Your task to perform on an android device: Go to Android settings Image 0: 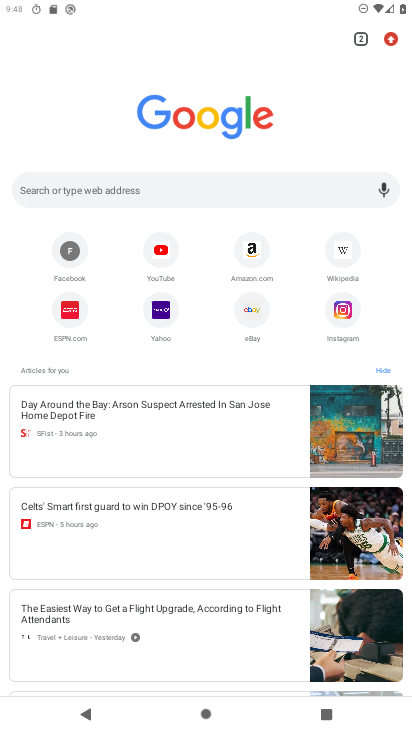
Step 0: click (386, 39)
Your task to perform on an android device: Go to Android settings Image 1: 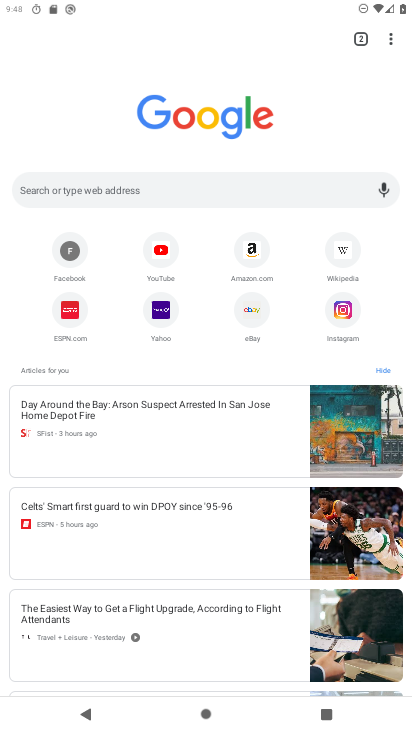
Step 1: click (388, 35)
Your task to perform on an android device: Go to Android settings Image 2: 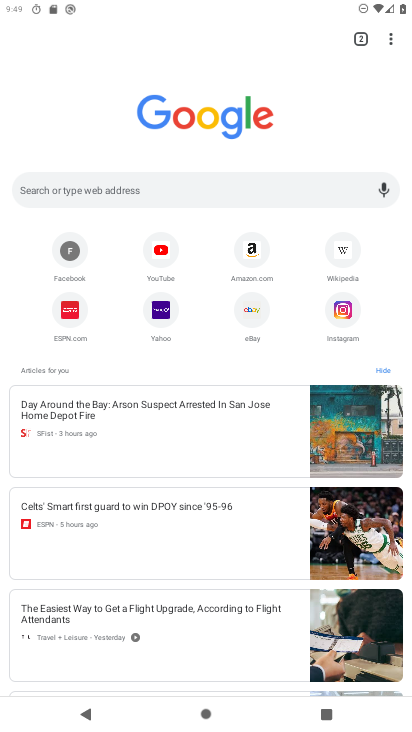
Step 2: click (388, 35)
Your task to perform on an android device: Go to Android settings Image 3: 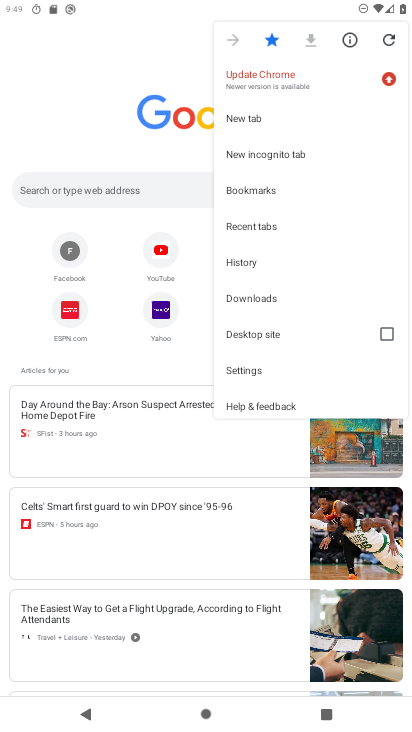
Step 3: press home button
Your task to perform on an android device: Go to Android settings Image 4: 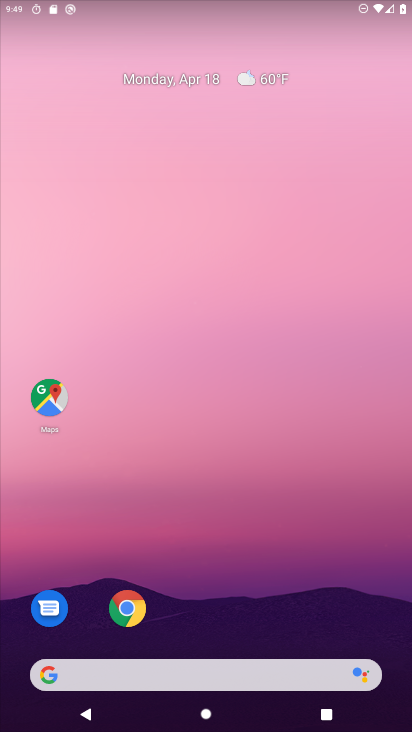
Step 4: drag from (373, 632) to (324, 181)
Your task to perform on an android device: Go to Android settings Image 5: 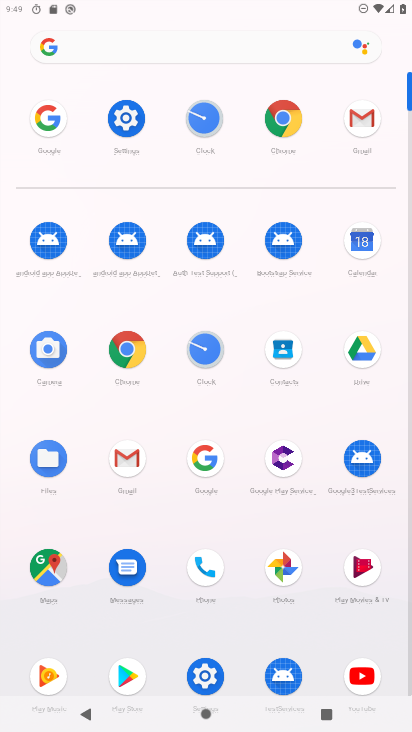
Step 5: click (127, 114)
Your task to perform on an android device: Go to Android settings Image 6: 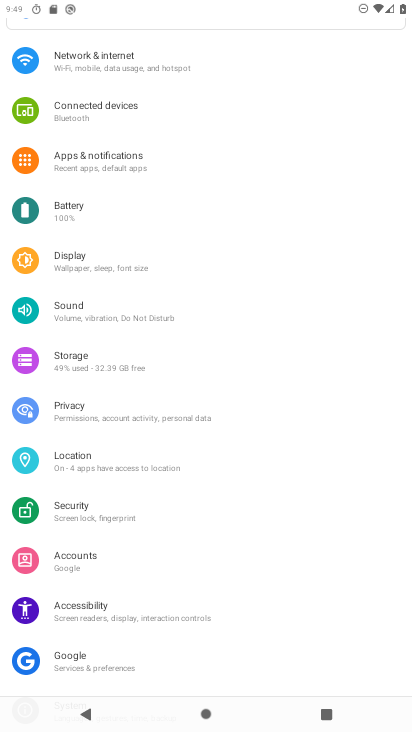
Step 6: drag from (247, 437) to (242, 165)
Your task to perform on an android device: Go to Android settings Image 7: 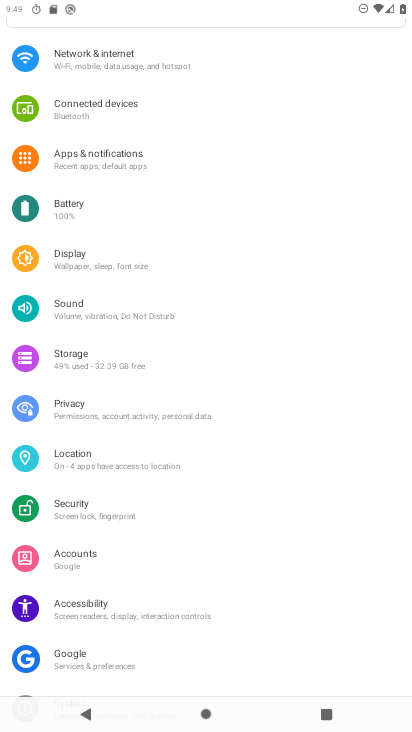
Step 7: drag from (239, 207) to (231, 137)
Your task to perform on an android device: Go to Android settings Image 8: 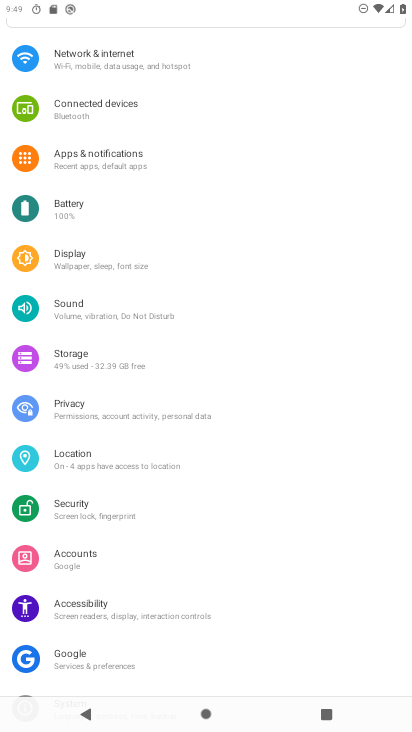
Step 8: click (26, 693)
Your task to perform on an android device: Go to Android settings Image 9: 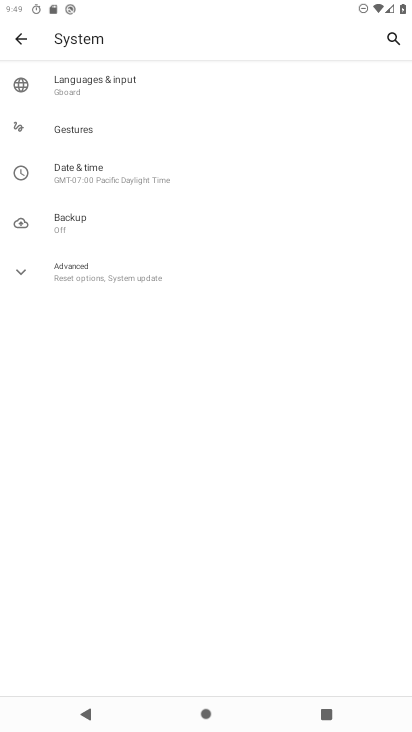
Step 9: press back button
Your task to perform on an android device: Go to Android settings Image 10: 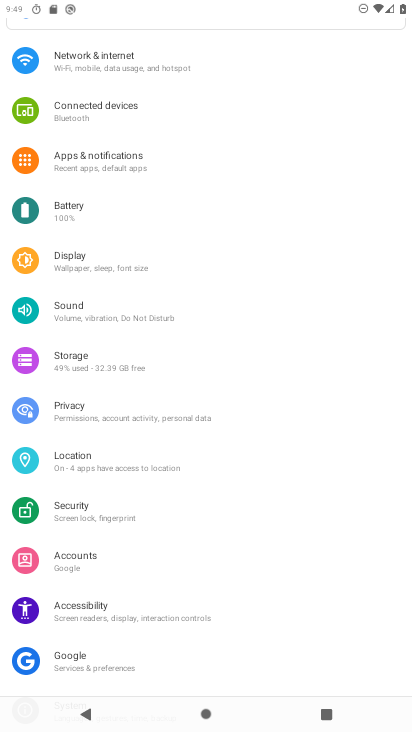
Step 10: drag from (259, 639) to (257, 290)
Your task to perform on an android device: Go to Android settings Image 11: 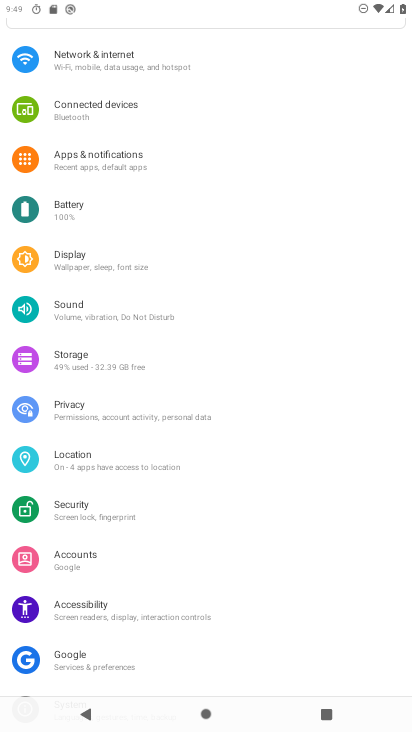
Step 11: drag from (276, 519) to (263, 190)
Your task to perform on an android device: Go to Android settings Image 12: 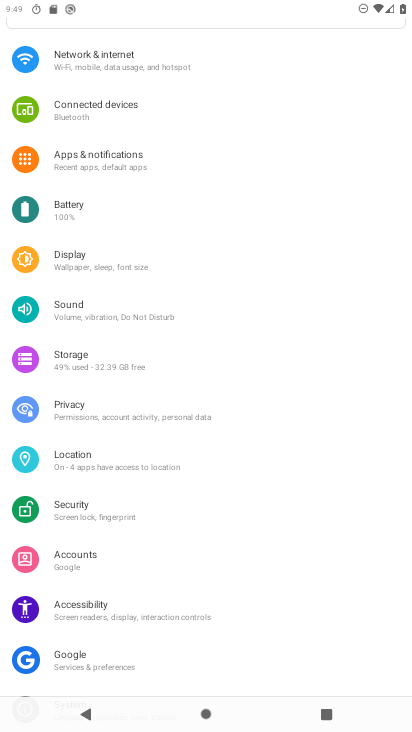
Step 12: drag from (268, 660) to (268, 241)
Your task to perform on an android device: Go to Android settings Image 13: 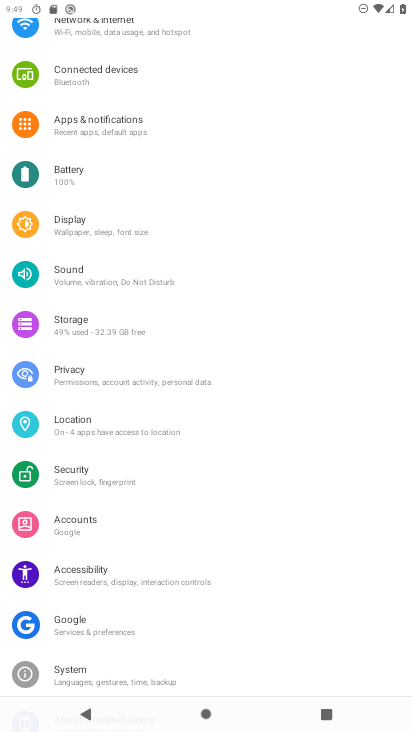
Step 13: drag from (331, 648) to (338, 128)
Your task to perform on an android device: Go to Android settings Image 14: 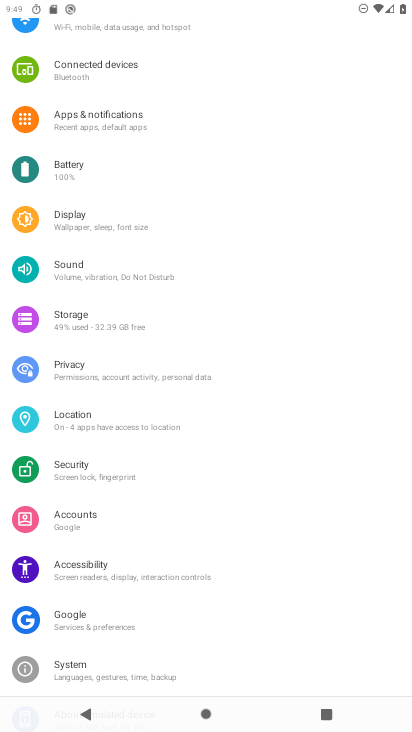
Step 14: drag from (332, 586) to (331, 78)
Your task to perform on an android device: Go to Android settings Image 15: 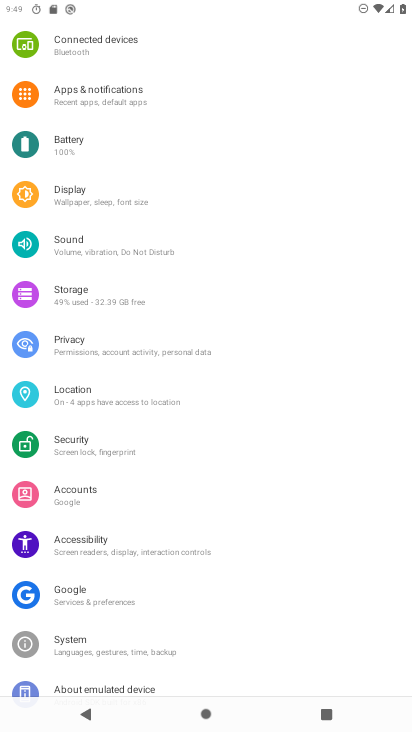
Step 15: click (56, 683)
Your task to perform on an android device: Go to Android settings Image 16: 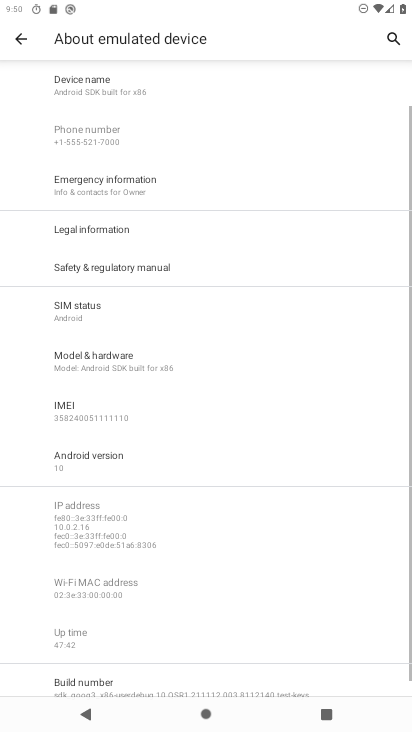
Step 16: task complete